Your task to perform on an android device: Open privacy settings Image 0: 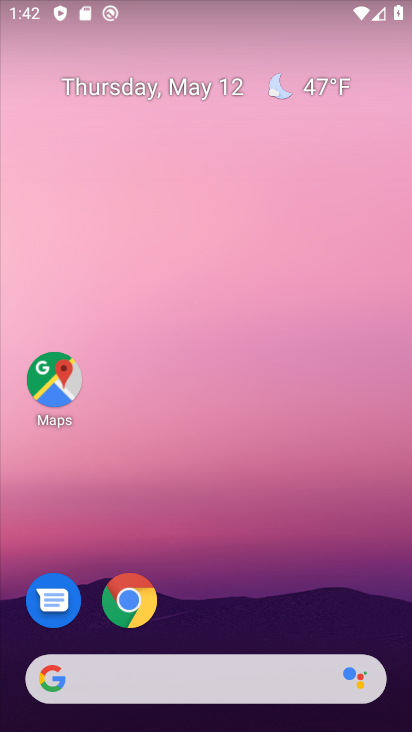
Step 0: drag from (224, 662) to (225, 89)
Your task to perform on an android device: Open privacy settings Image 1: 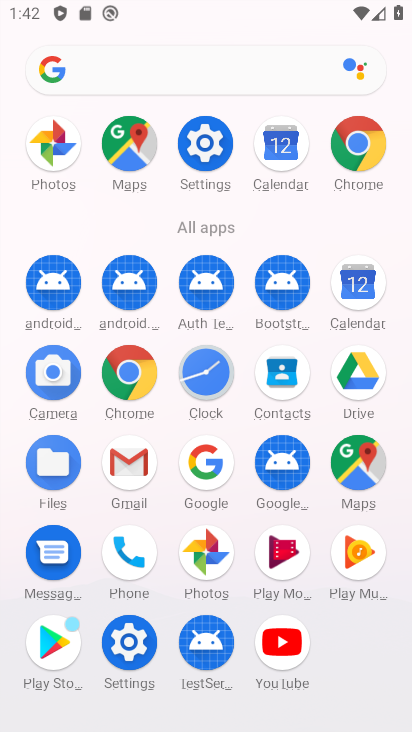
Step 1: click (206, 146)
Your task to perform on an android device: Open privacy settings Image 2: 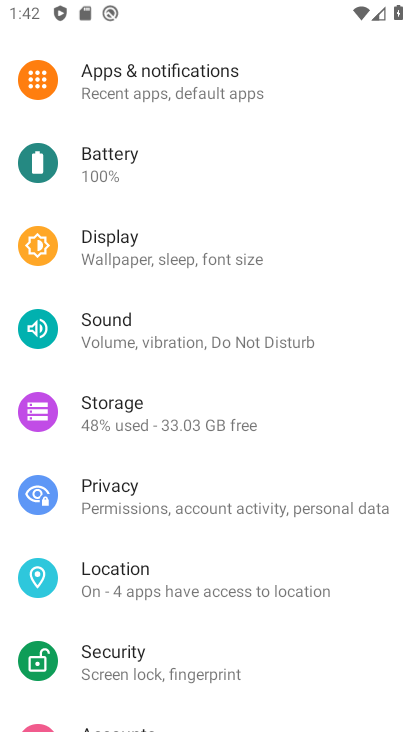
Step 2: click (141, 489)
Your task to perform on an android device: Open privacy settings Image 3: 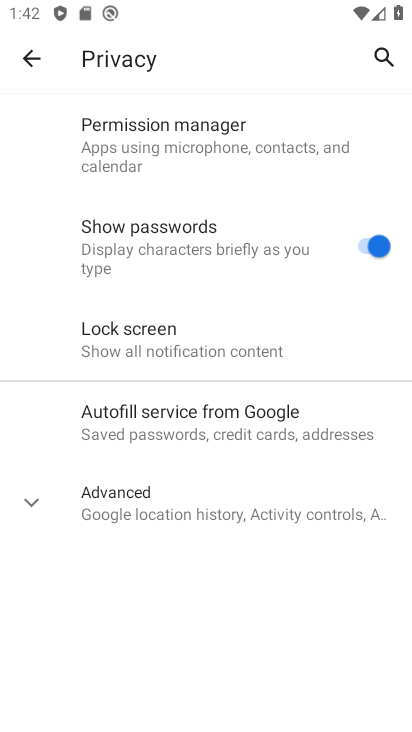
Step 3: task complete